Your task to perform on an android device: search for starred emails in the gmail app Image 0: 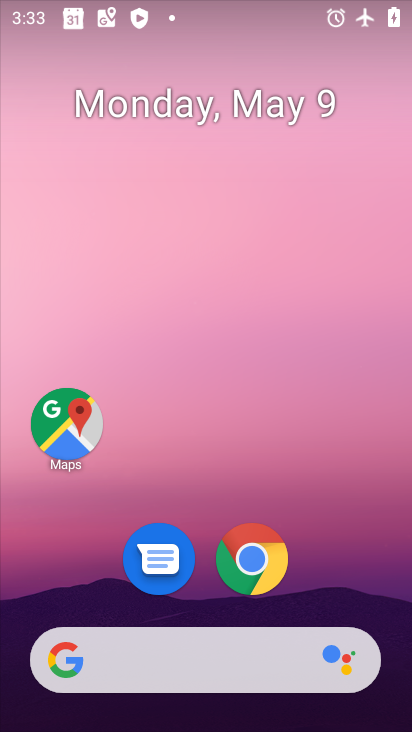
Step 0: drag from (193, 720) to (195, 207)
Your task to perform on an android device: search for starred emails in the gmail app Image 1: 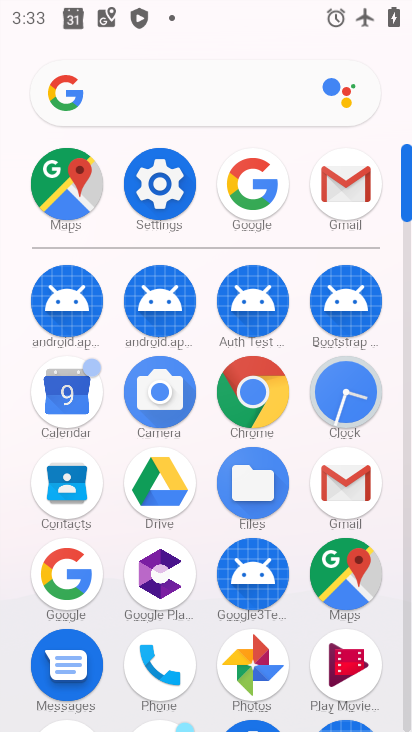
Step 1: click (353, 187)
Your task to perform on an android device: search for starred emails in the gmail app Image 2: 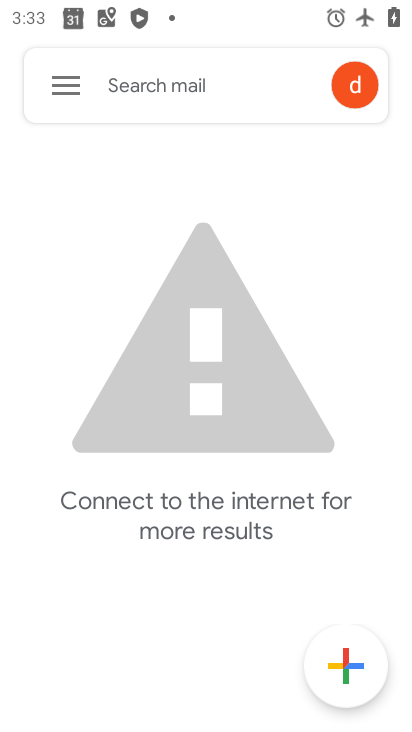
Step 2: click (70, 79)
Your task to perform on an android device: search for starred emails in the gmail app Image 3: 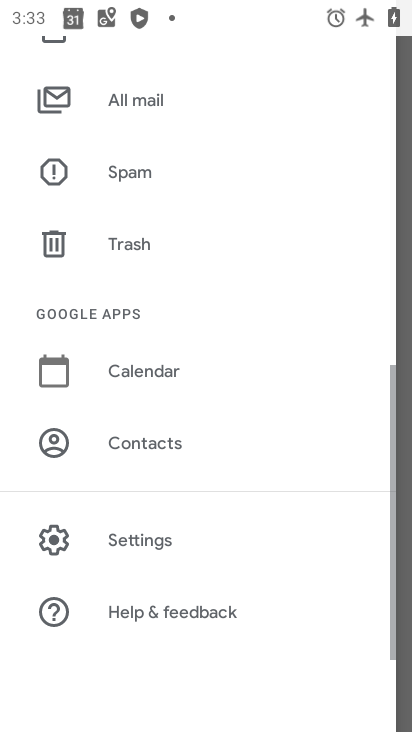
Step 3: drag from (224, 122) to (221, 526)
Your task to perform on an android device: search for starred emails in the gmail app Image 4: 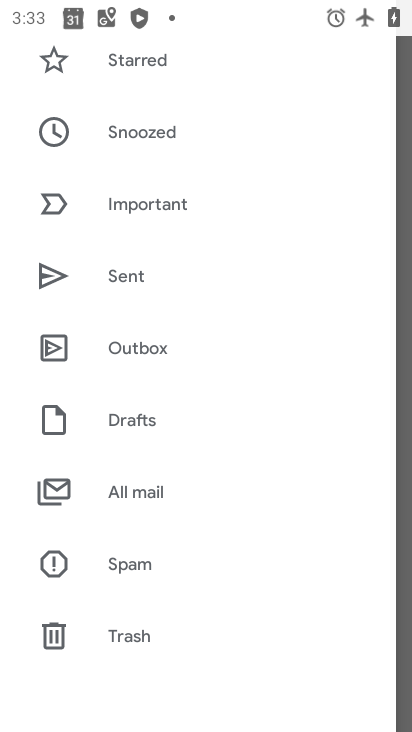
Step 4: click (139, 57)
Your task to perform on an android device: search for starred emails in the gmail app Image 5: 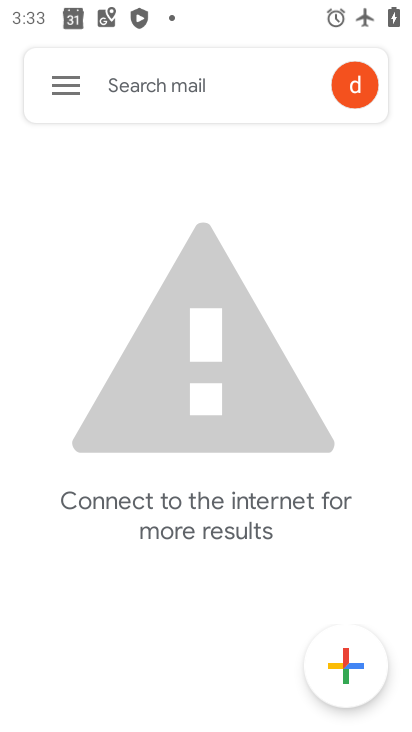
Step 5: task complete